Your task to perform on an android device: Open the web browser Image 0: 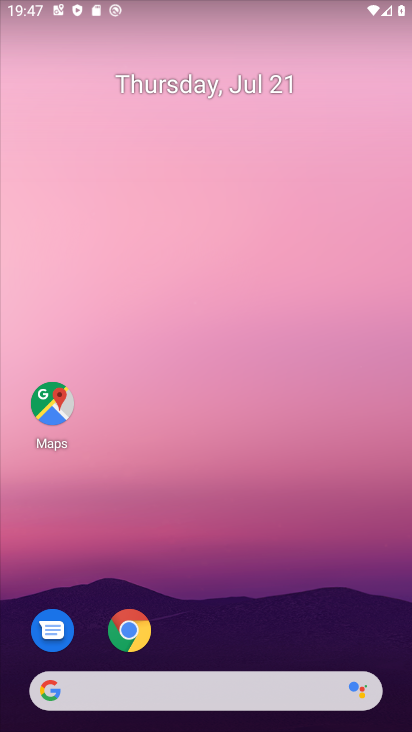
Step 0: click (127, 642)
Your task to perform on an android device: Open the web browser Image 1: 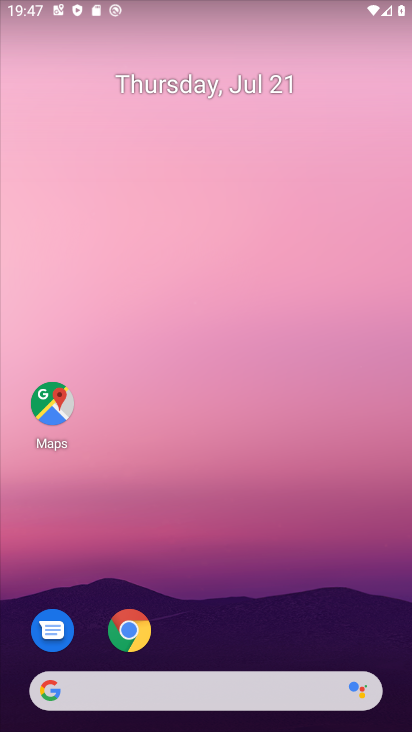
Step 1: click (127, 642)
Your task to perform on an android device: Open the web browser Image 2: 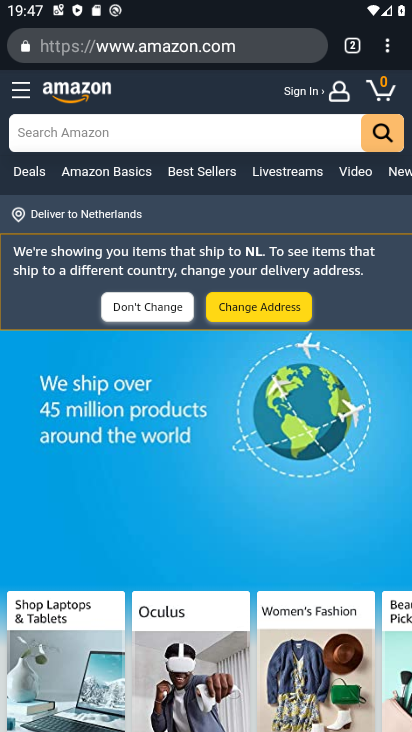
Step 2: task complete